Your task to perform on an android device: turn on showing notifications on the lock screen Image 0: 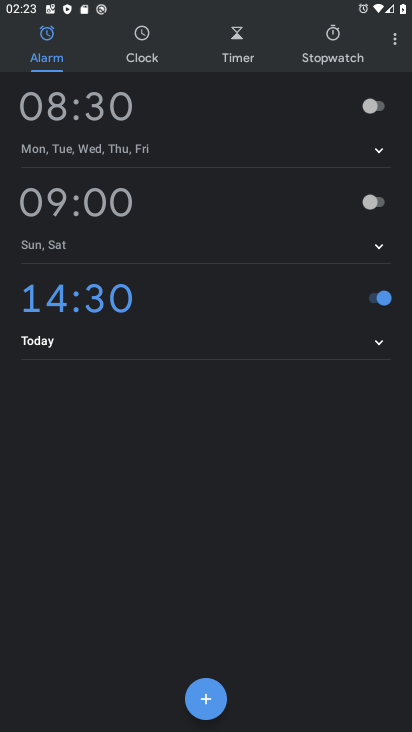
Step 0: press home button
Your task to perform on an android device: turn on showing notifications on the lock screen Image 1: 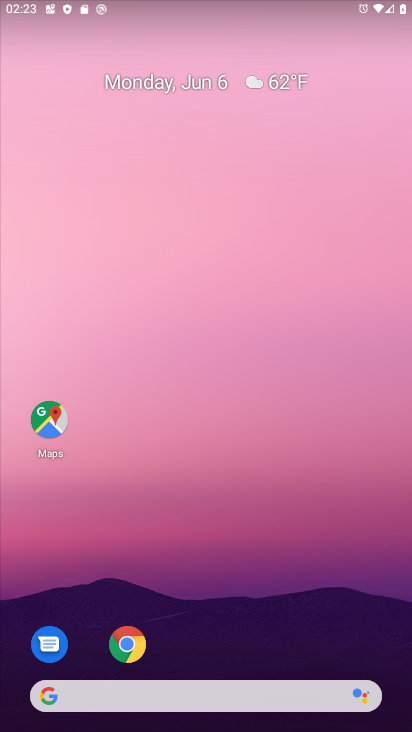
Step 1: drag from (140, 731) to (118, 158)
Your task to perform on an android device: turn on showing notifications on the lock screen Image 2: 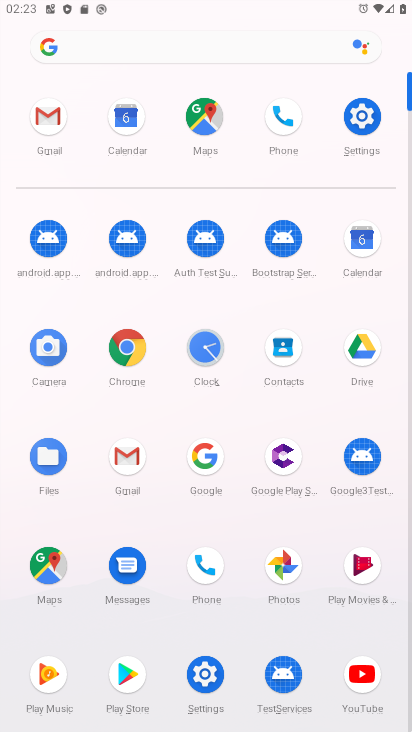
Step 2: click (361, 113)
Your task to perform on an android device: turn on showing notifications on the lock screen Image 3: 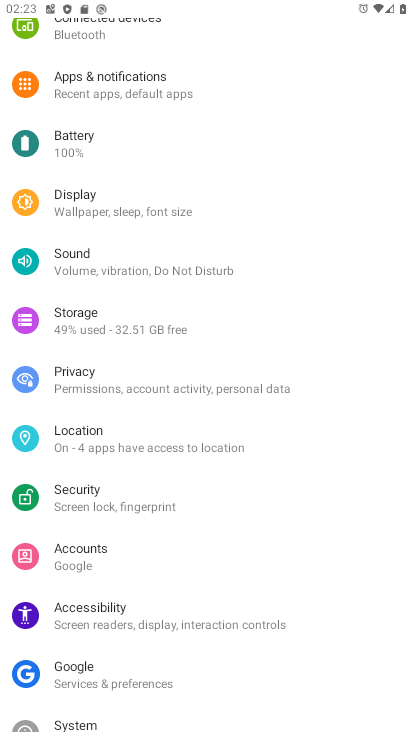
Step 3: click (134, 97)
Your task to perform on an android device: turn on showing notifications on the lock screen Image 4: 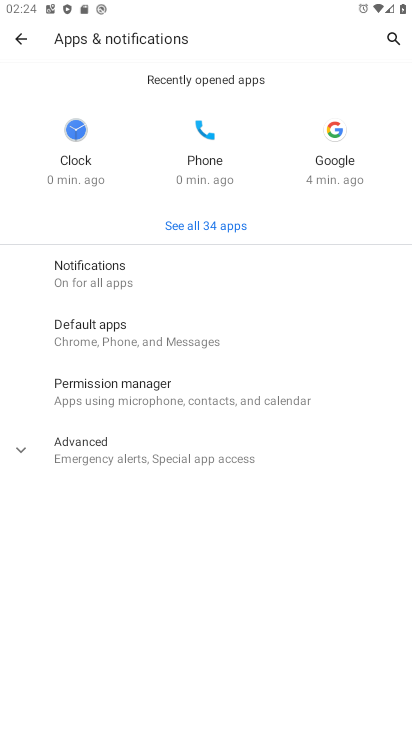
Step 4: click (69, 285)
Your task to perform on an android device: turn on showing notifications on the lock screen Image 5: 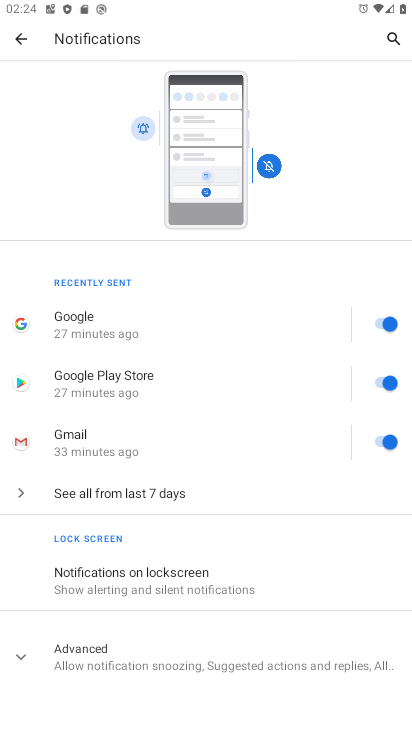
Step 5: click (256, 591)
Your task to perform on an android device: turn on showing notifications on the lock screen Image 6: 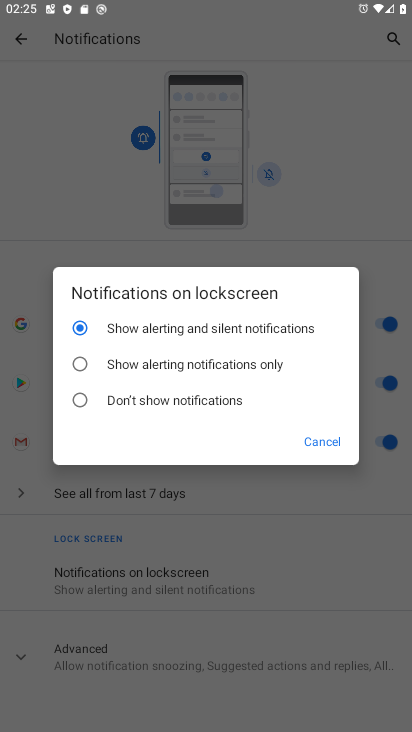
Step 6: task complete